Your task to perform on an android device: Set the phone to "Do not disturb". Image 0: 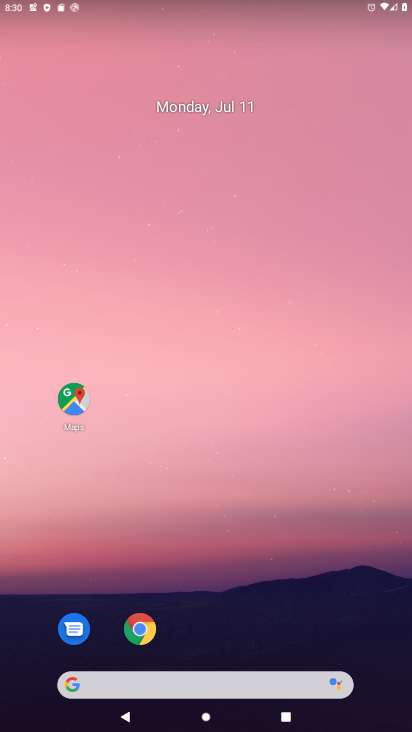
Step 0: drag from (224, 646) to (236, 80)
Your task to perform on an android device: Set the phone to "Do not disturb". Image 1: 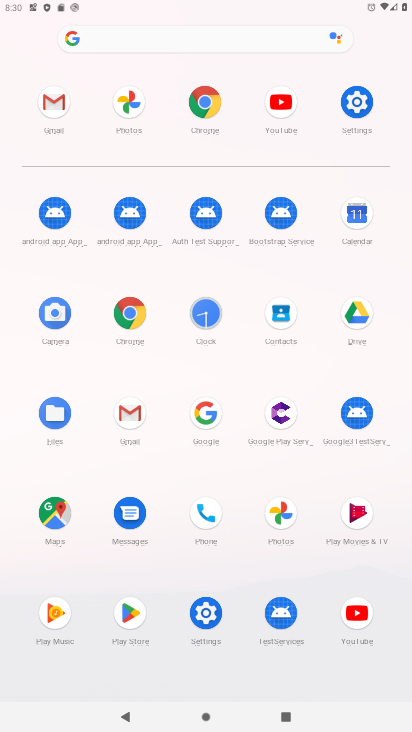
Step 1: click (358, 102)
Your task to perform on an android device: Set the phone to "Do not disturb". Image 2: 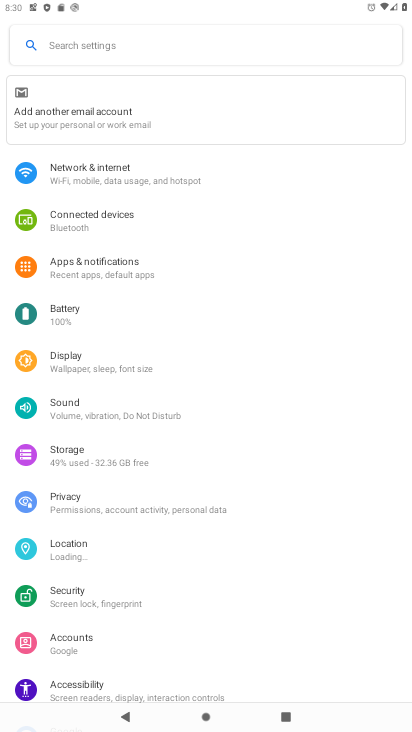
Step 2: click (147, 418)
Your task to perform on an android device: Set the phone to "Do not disturb". Image 3: 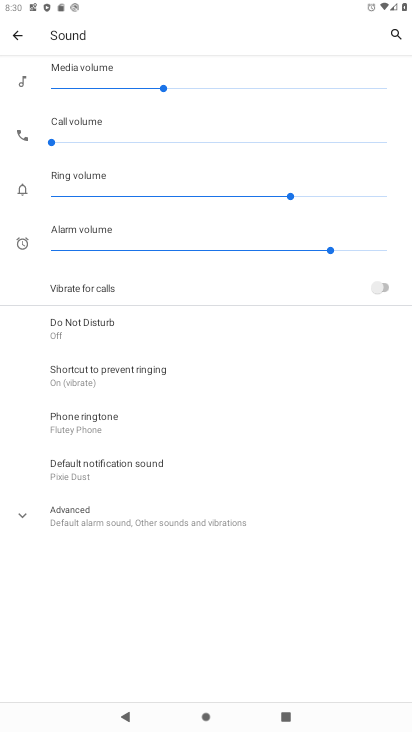
Step 3: click (118, 320)
Your task to perform on an android device: Set the phone to "Do not disturb". Image 4: 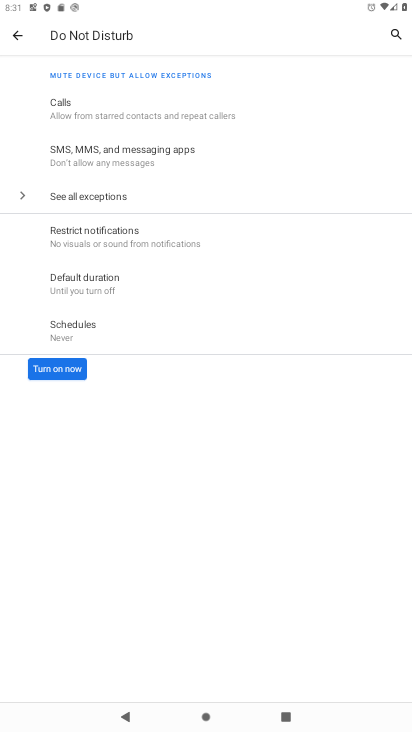
Step 4: click (50, 372)
Your task to perform on an android device: Set the phone to "Do not disturb". Image 5: 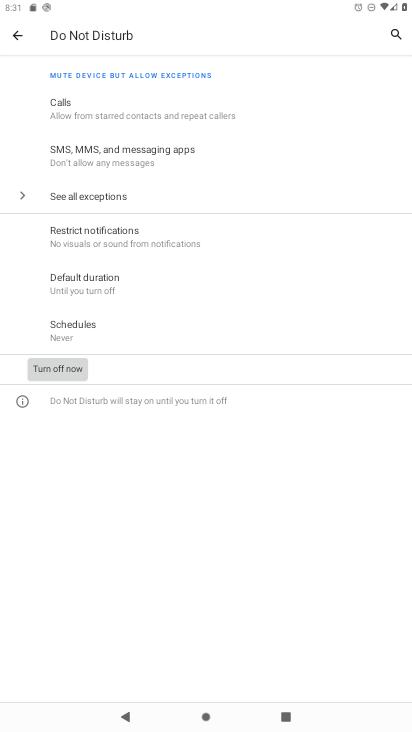
Step 5: task complete